Your task to perform on an android device: Find coffee shops on Maps Image 0: 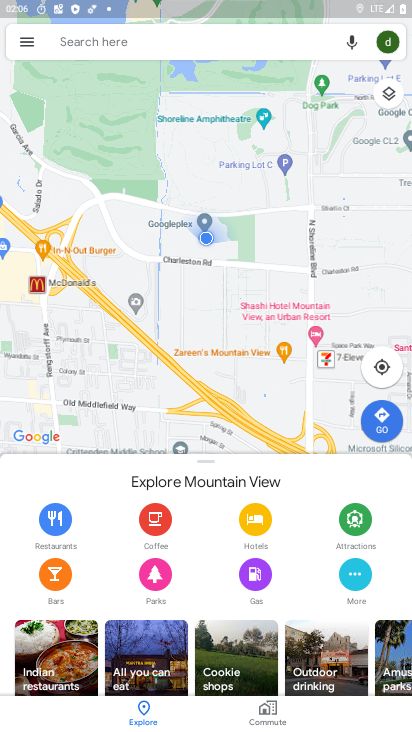
Step 0: click (159, 46)
Your task to perform on an android device: Find coffee shops on Maps Image 1: 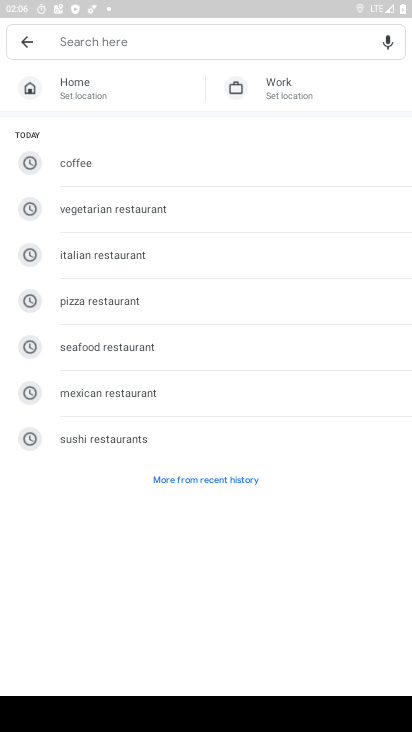
Step 1: type "coffee shops"
Your task to perform on an android device: Find coffee shops on Maps Image 2: 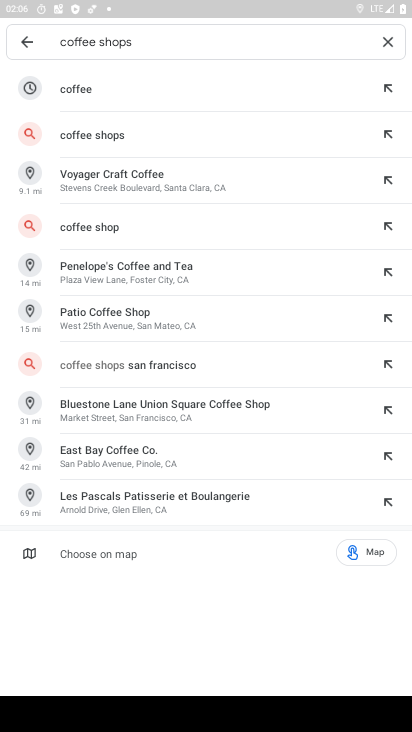
Step 2: click (60, 137)
Your task to perform on an android device: Find coffee shops on Maps Image 3: 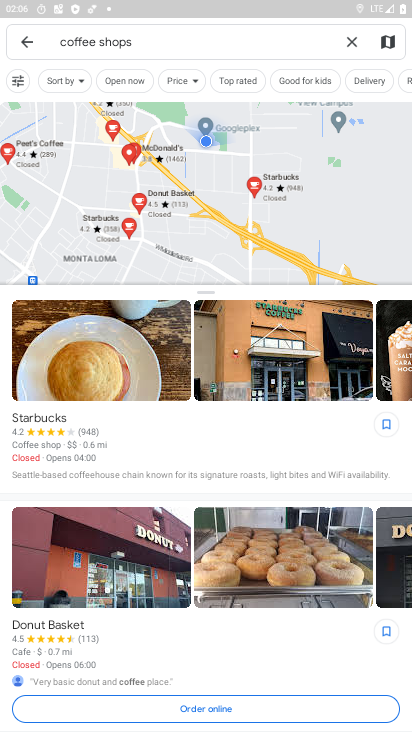
Step 3: task complete